Your task to perform on an android device: Go to Yahoo.com Image 0: 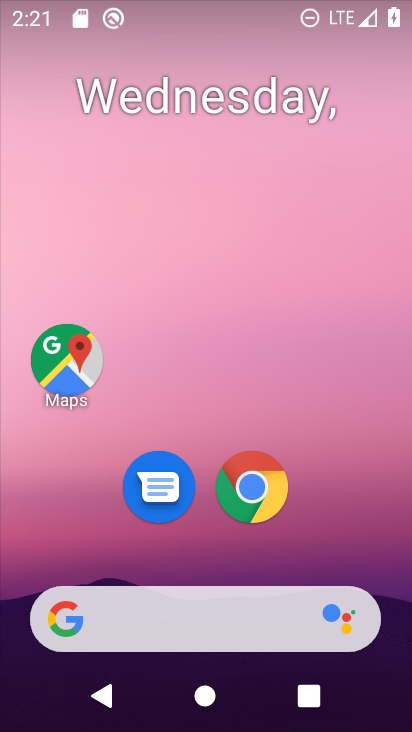
Step 0: drag from (320, 349) to (267, 121)
Your task to perform on an android device: Go to Yahoo.com Image 1: 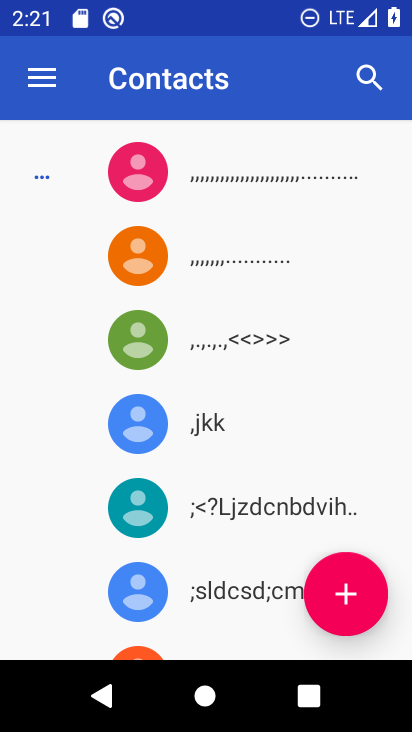
Step 1: press home button
Your task to perform on an android device: Go to Yahoo.com Image 2: 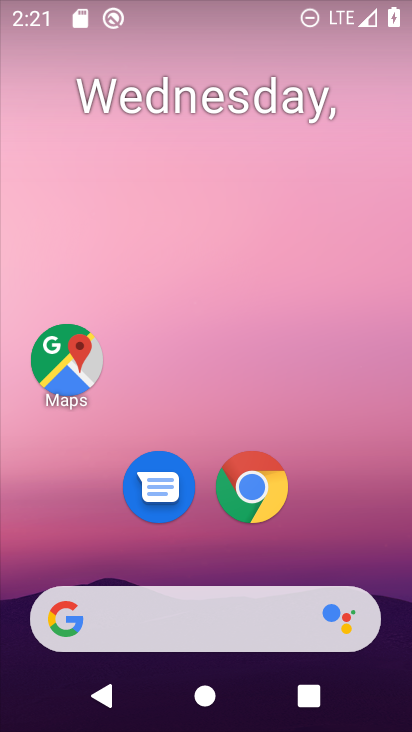
Step 2: drag from (388, 613) to (243, 129)
Your task to perform on an android device: Go to Yahoo.com Image 3: 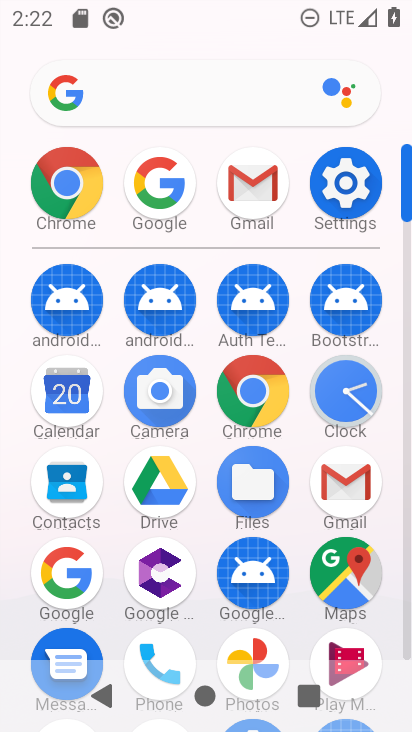
Step 3: click (239, 373)
Your task to perform on an android device: Go to Yahoo.com Image 4: 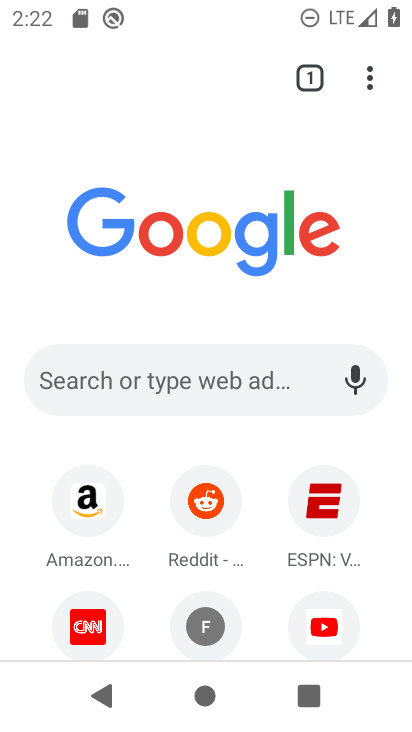
Step 4: click (155, 361)
Your task to perform on an android device: Go to Yahoo.com Image 5: 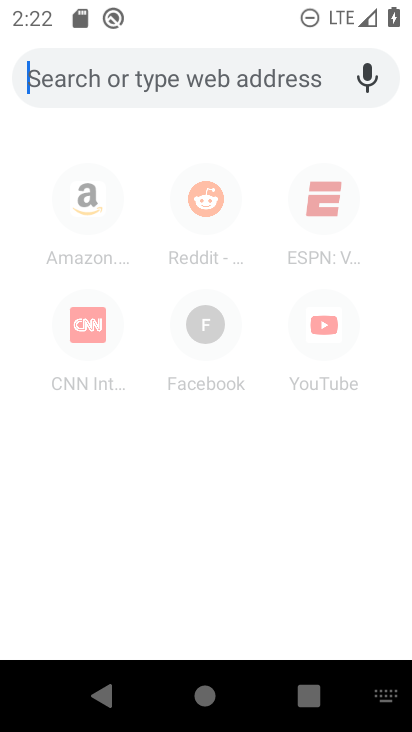
Step 5: type "yahoo.com"
Your task to perform on an android device: Go to Yahoo.com Image 6: 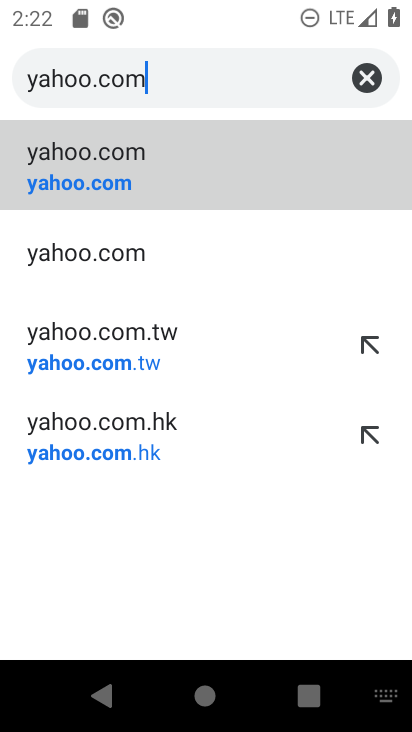
Step 6: click (272, 184)
Your task to perform on an android device: Go to Yahoo.com Image 7: 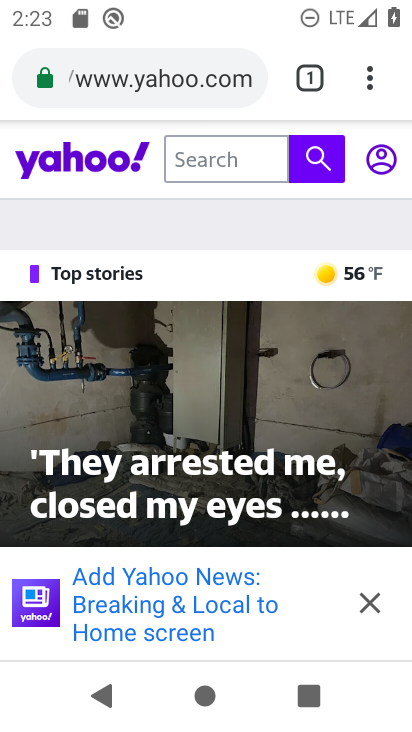
Step 7: task complete